Your task to perform on an android device: Do I have any events this weekend? Image 0: 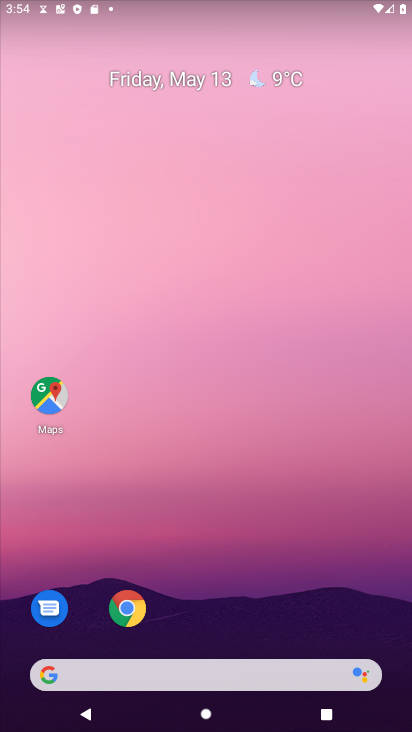
Step 0: drag from (223, 658) to (265, 287)
Your task to perform on an android device: Do I have any events this weekend? Image 1: 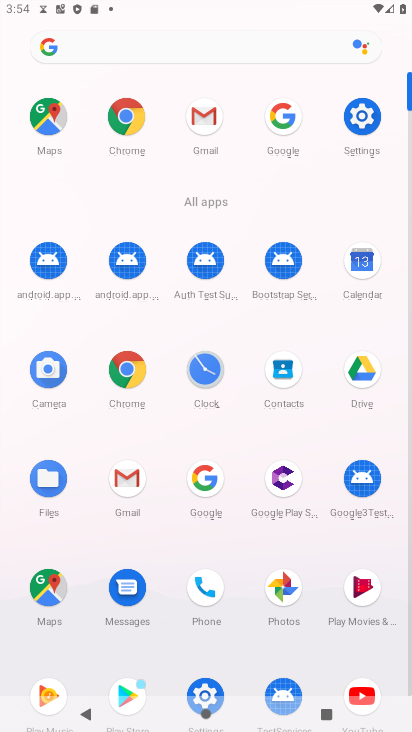
Step 1: click (365, 119)
Your task to perform on an android device: Do I have any events this weekend? Image 2: 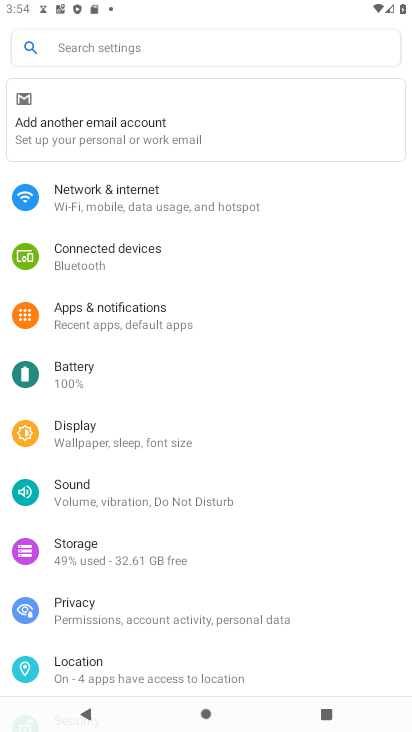
Step 2: press home button
Your task to perform on an android device: Do I have any events this weekend? Image 3: 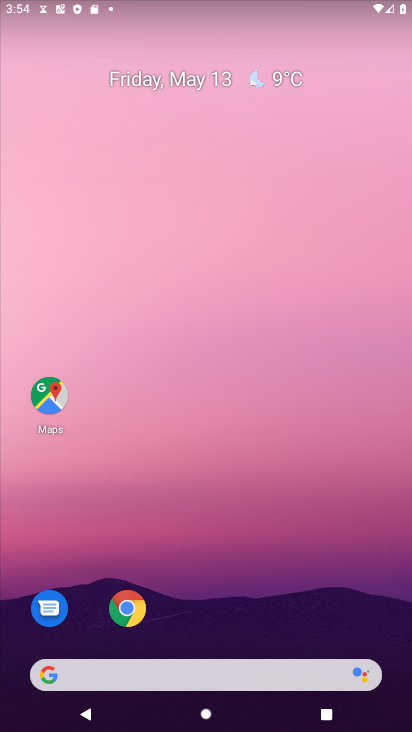
Step 3: drag from (229, 625) to (236, 335)
Your task to perform on an android device: Do I have any events this weekend? Image 4: 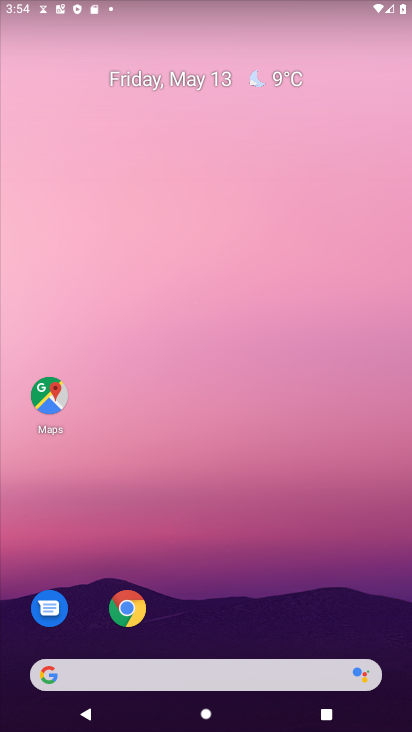
Step 4: drag from (272, 671) to (259, 191)
Your task to perform on an android device: Do I have any events this weekend? Image 5: 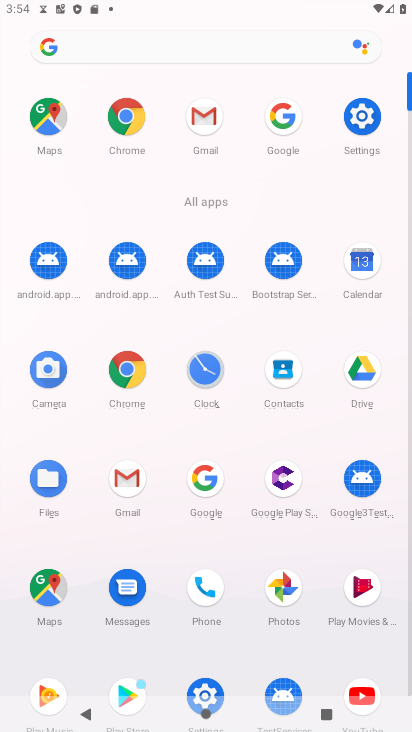
Step 5: click (349, 263)
Your task to perform on an android device: Do I have any events this weekend? Image 6: 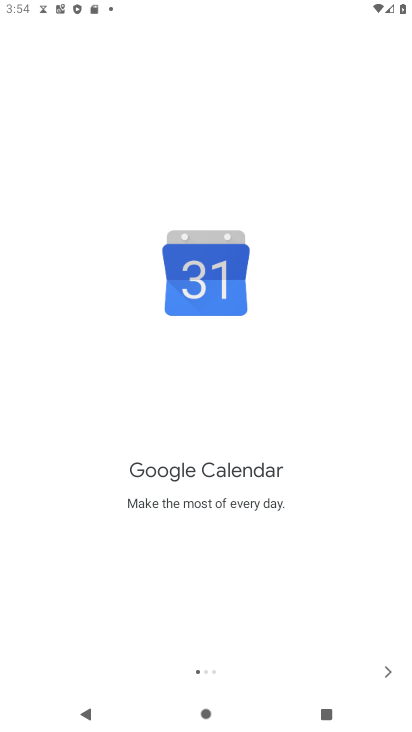
Step 6: click (383, 670)
Your task to perform on an android device: Do I have any events this weekend? Image 7: 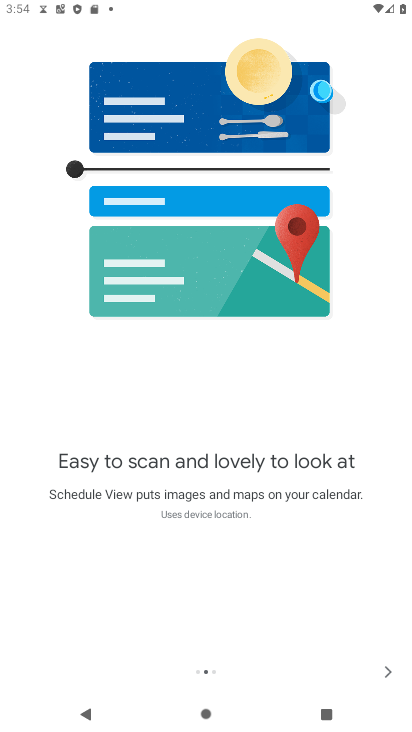
Step 7: click (383, 670)
Your task to perform on an android device: Do I have any events this weekend? Image 8: 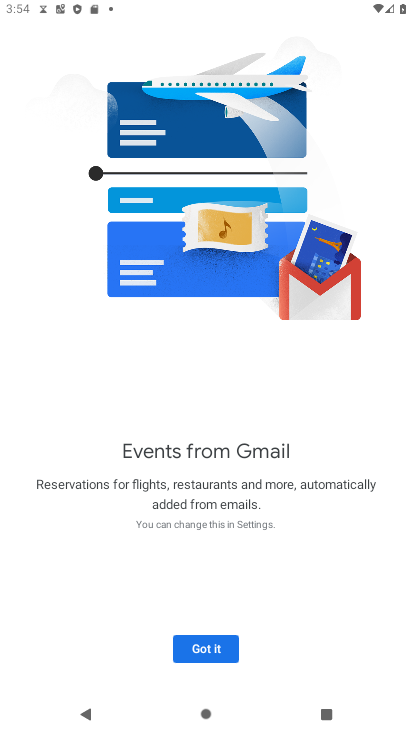
Step 8: click (210, 644)
Your task to perform on an android device: Do I have any events this weekend? Image 9: 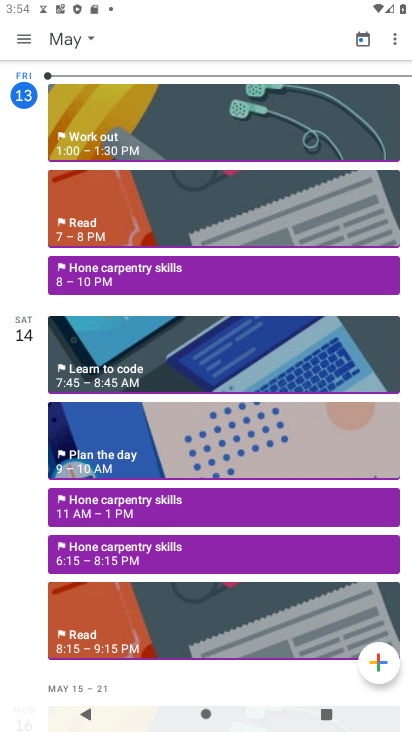
Step 9: click (73, 37)
Your task to perform on an android device: Do I have any events this weekend? Image 10: 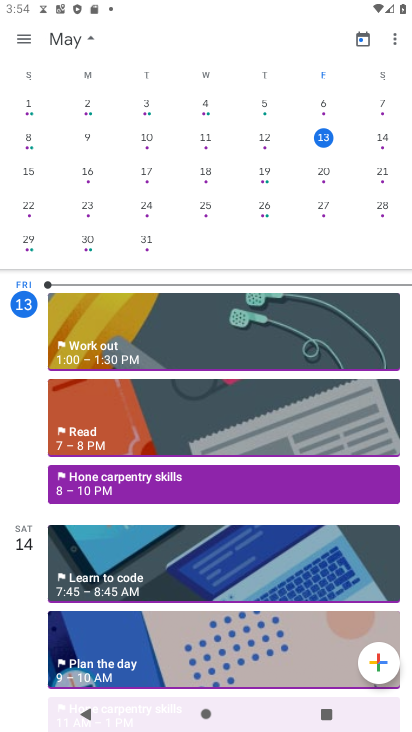
Step 10: click (380, 143)
Your task to perform on an android device: Do I have any events this weekend? Image 11: 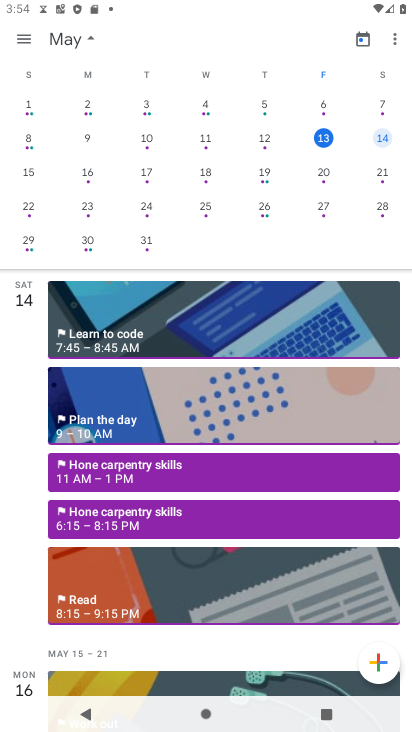
Step 11: click (136, 318)
Your task to perform on an android device: Do I have any events this weekend? Image 12: 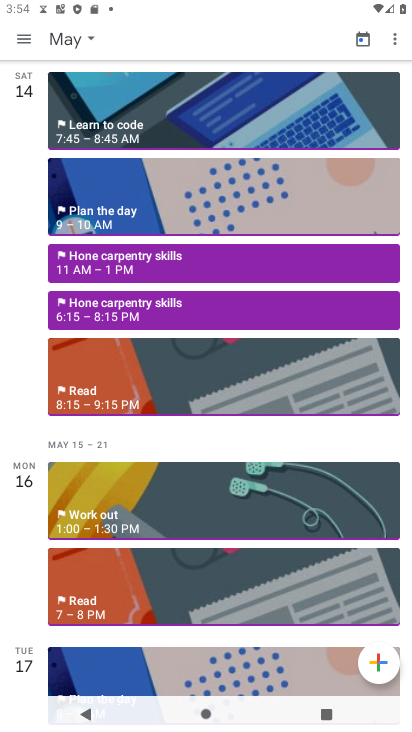
Step 12: task complete